Your task to perform on an android device: check google app version Image 0: 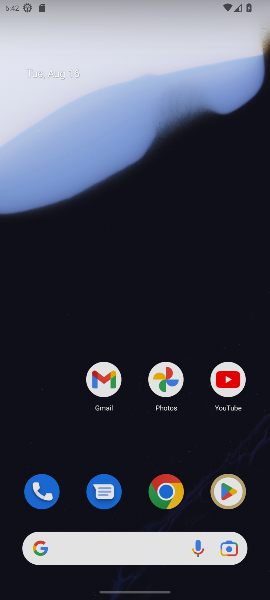
Step 0: drag from (68, 422) to (66, 157)
Your task to perform on an android device: check google app version Image 1: 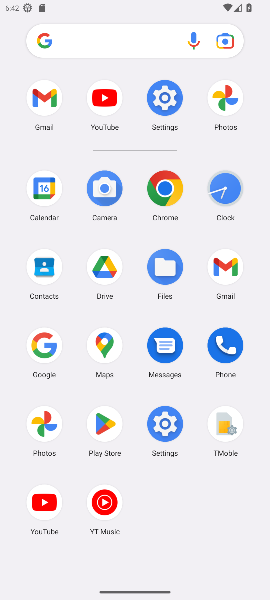
Step 1: click (168, 432)
Your task to perform on an android device: check google app version Image 2: 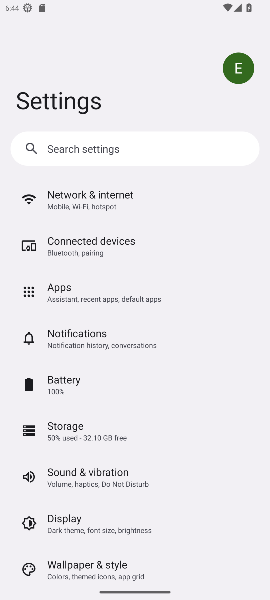
Step 2: task complete